Your task to perform on an android device: turn on notifications settings in the gmail app Image 0: 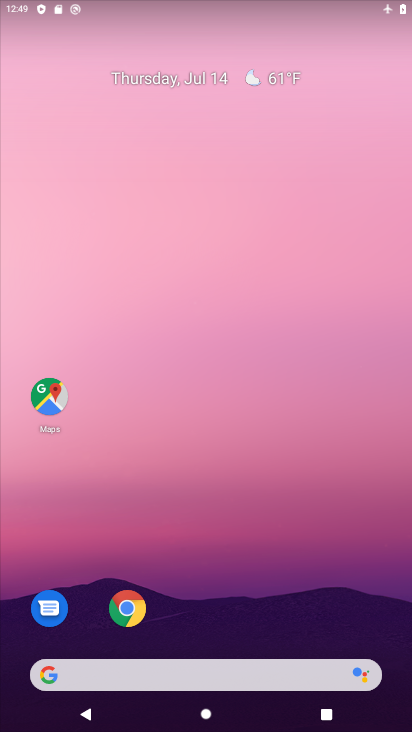
Step 0: drag from (351, 616) to (368, 76)
Your task to perform on an android device: turn on notifications settings in the gmail app Image 1: 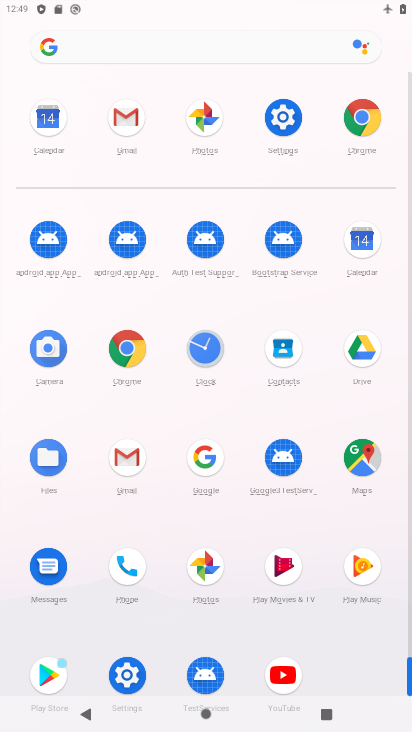
Step 1: click (126, 459)
Your task to perform on an android device: turn on notifications settings in the gmail app Image 2: 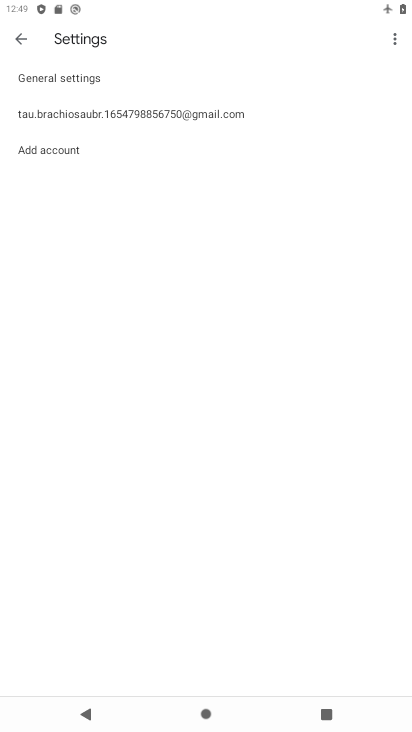
Step 2: click (198, 114)
Your task to perform on an android device: turn on notifications settings in the gmail app Image 3: 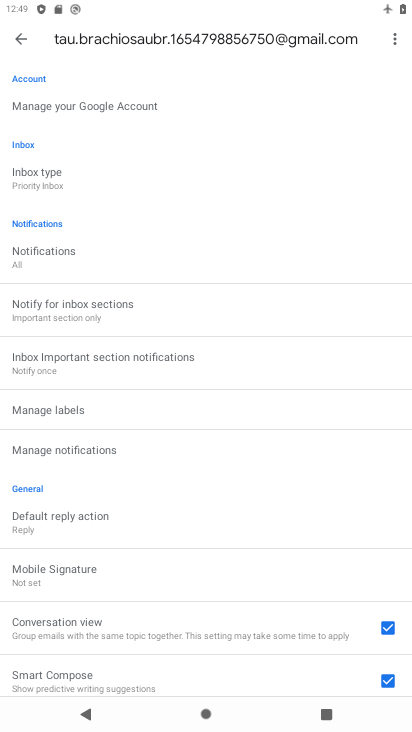
Step 3: drag from (289, 361) to (292, 314)
Your task to perform on an android device: turn on notifications settings in the gmail app Image 4: 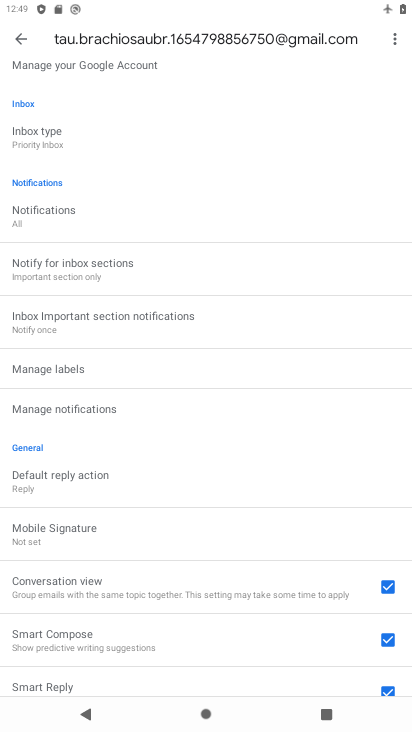
Step 4: drag from (309, 383) to (312, 320)
Your task to perform on an android device: turn on notifications settings in the gmail app Image 5: 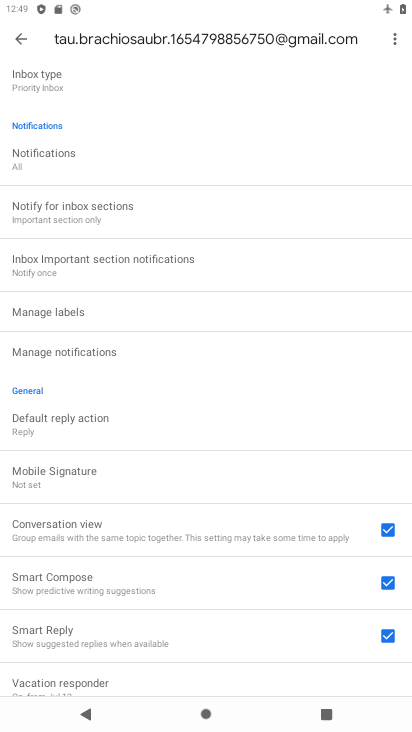
Step 5: drag from (301, 374) to (303, 340)
Your task to perform on an android device: turn on notifications settings in the gmail app Image 6: 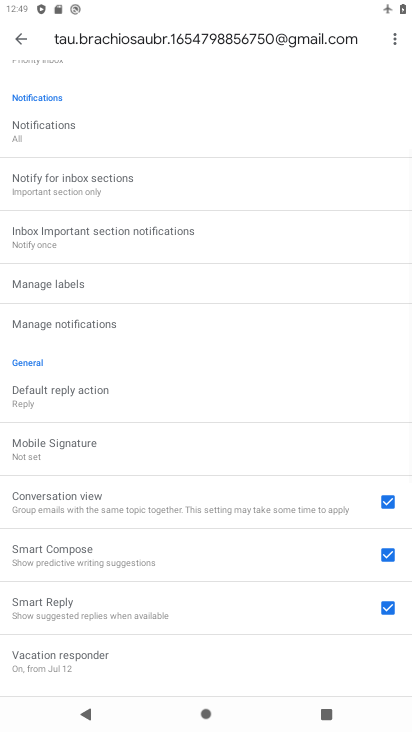
Step 6: drag from (303, 389) to (307, 330)
Your task to perform on an android device: turn on notifications settings in the gmail app Image 7: 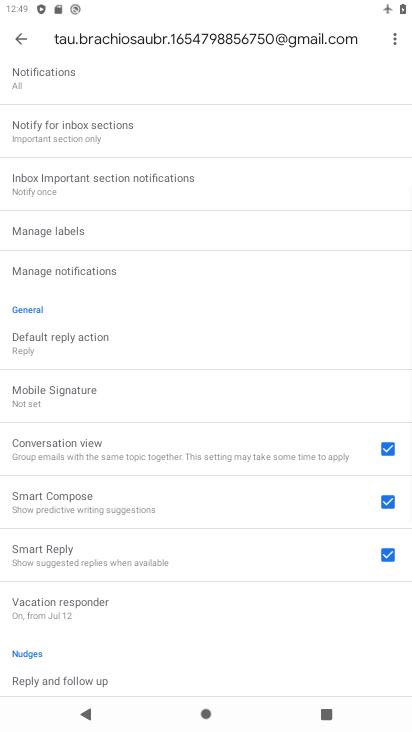
Step 7: drag from (307, 386) to (311, 320)
Your task to perform on an android device: turn on notifications settings in the gmail app Image 8: 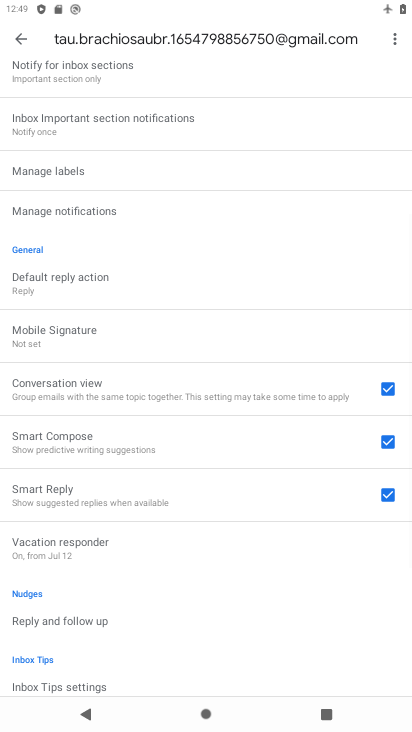
Step 8: drag from (306, 399) to (309, 346)
Your task to perform on an android device: turn on notifications settings in the gmail app Image 9: 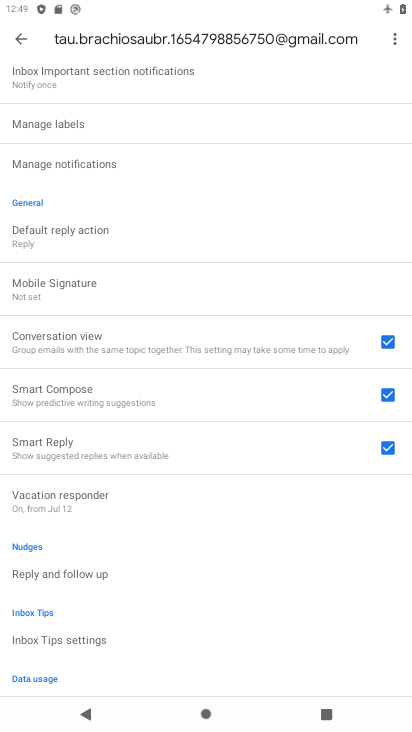
Step 9: drag from (306, 427) to (307, 379)
Your task to perform on an android device: turn on notifications settings in the gmail app Image 10: 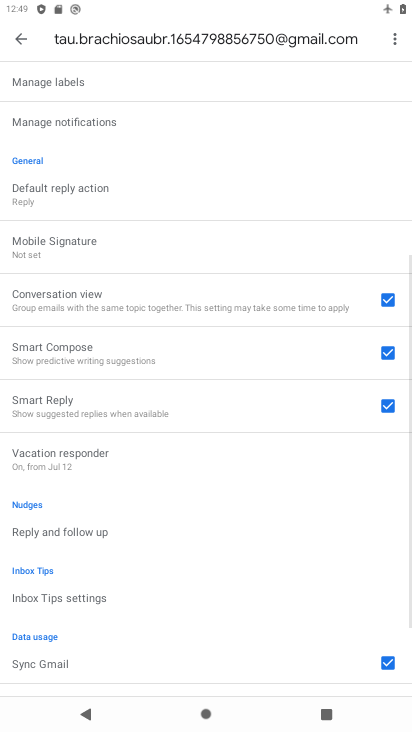
Step 10: drag from (302, 442) to (315, 376)
Your task to perform on an android device: turn on notifications settings in the gmail app Image 11: 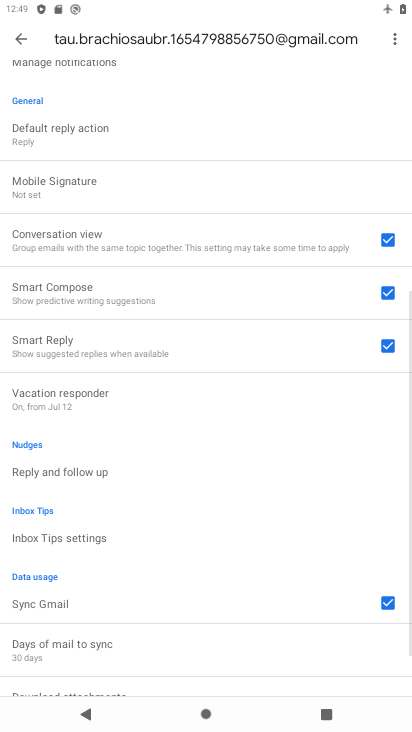
Step 11: drag from (306, 437) to (310, 310)
Your task to perform on an android device: turn on notifications settings in the gmail app Image 12: 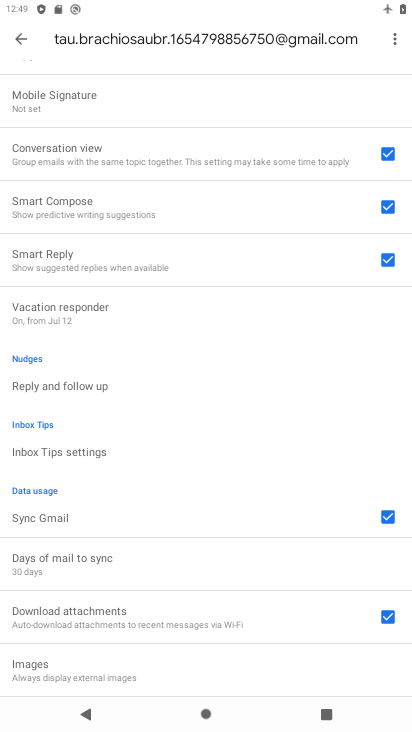
Step 12: drag from (299, 232) to (296, 298)
Your task to perform on an android device: turn on notifications settings in the gmail app Image 13: 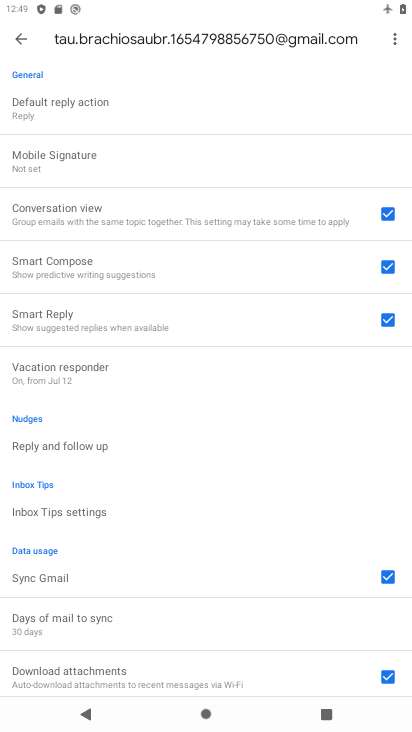
Step 13: drag from (299, 174) to (300, 279)
Your task to perform on an android device: turn on notifications settings in the gmail app Image 14: 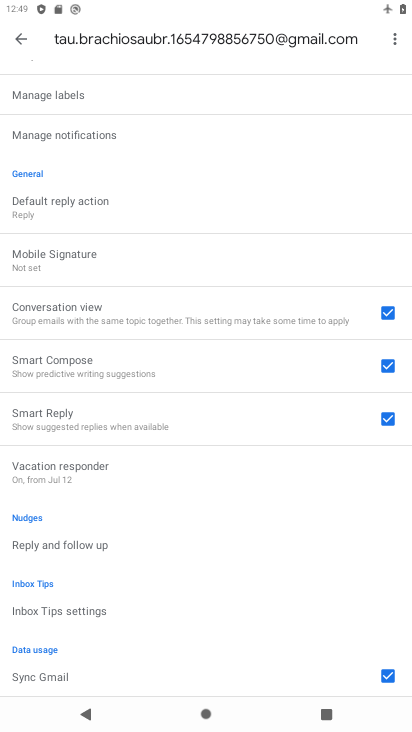
Step 14: drag from (300, 204) to (300, 290)
Your task to perform on an android device: turn on notifications settings in the gmail app Image 15: 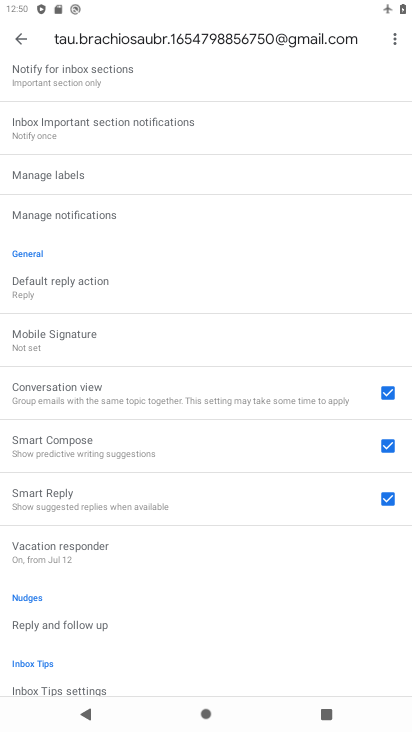
Step 15: drag from (302, 203) to (303, 281)
Your task to perform on an android device: turn on notifications settings in the gmail app Image 16: 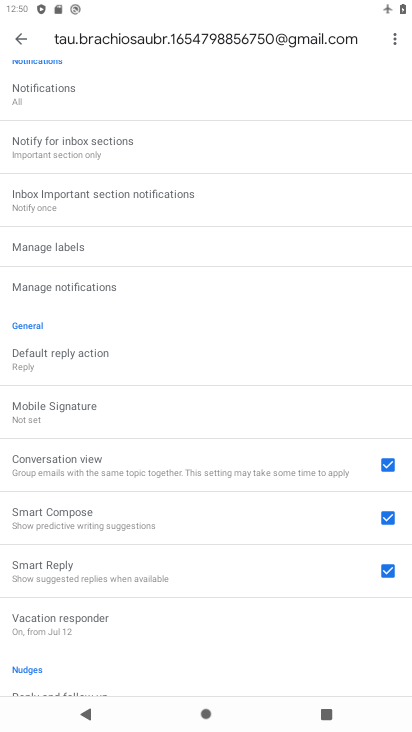
Step 16: drag from (301, 191) to (298, 264)
Your task to perform on an android device: turn on notifications settings in the gmail app Image 17: 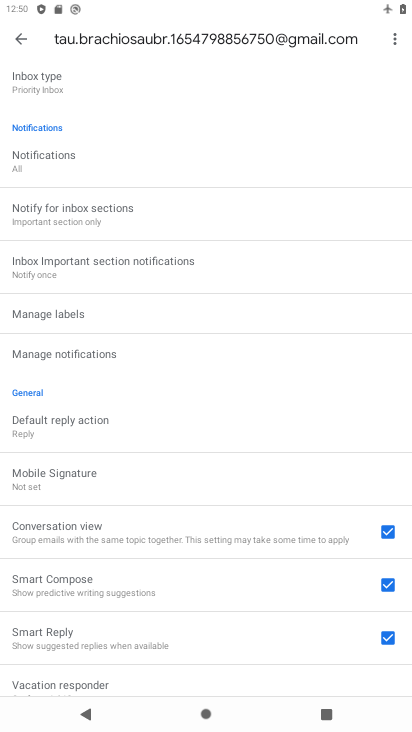
Step 17: drag from (287, 183) to (290, 270)
Your task to perform on an android device: turn on notifications settings in the gmail app Image 18: 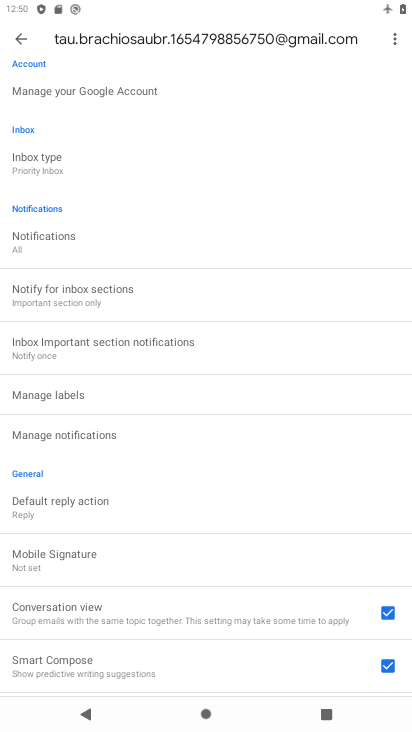
Step 18: drag from (273, 201) to (273, 301)
Your task to perform on an android device: turn on notifications settings in the gmail app Image 19: 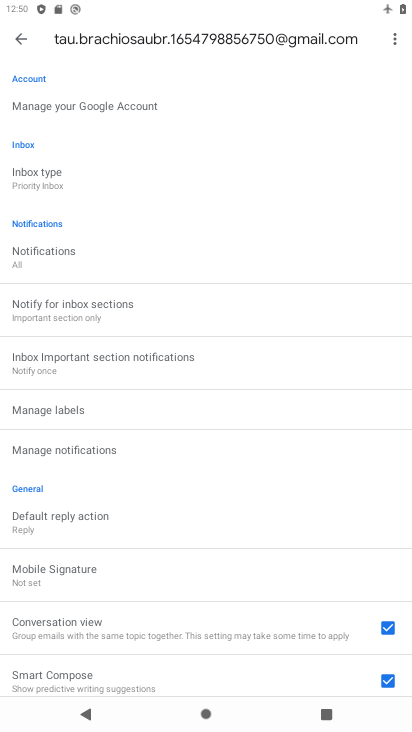
Step 19: drag from (173, 407) to (181, 299)
Your task to perform on an android device: turn on notifications settings in the gmail app Image 20: 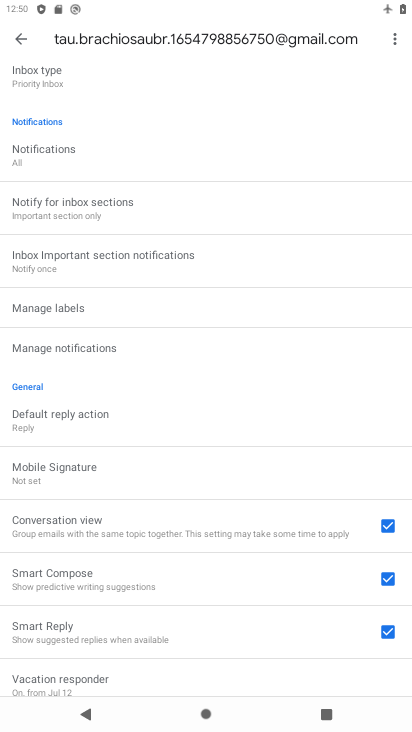
Step 20: click (134, 347)
Your task to perform on an android device: turn on notifications settings in the gmail app Image 21: 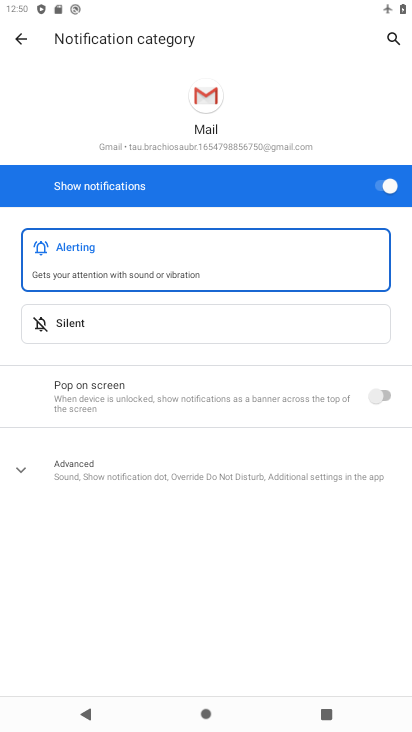
Step 21: task complete